Your task to perform on an android device: Go to calendar. Show me events next week Image 0: 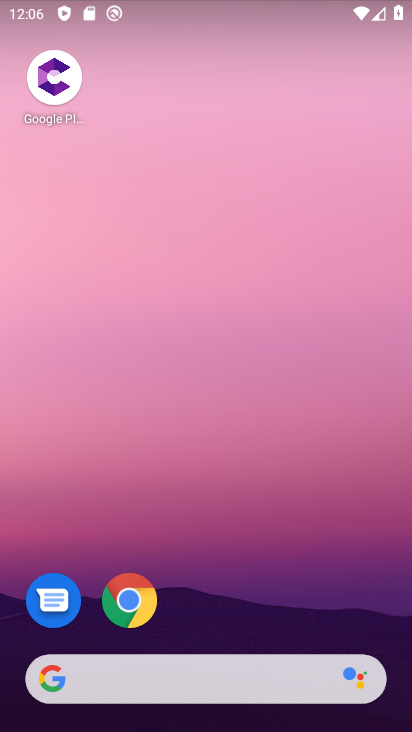
Step 0: drag from (221, 557) to (273, 99)
Your task to perform on an android device: Go to calendar. Show me events next week Image 1: 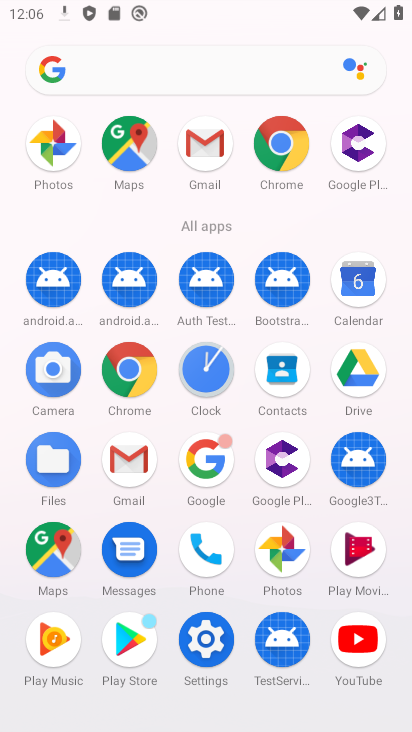
Step 1: click (361, 291)
Your task to perform on an android device: Go to calendar. Show me events next week Image 2: 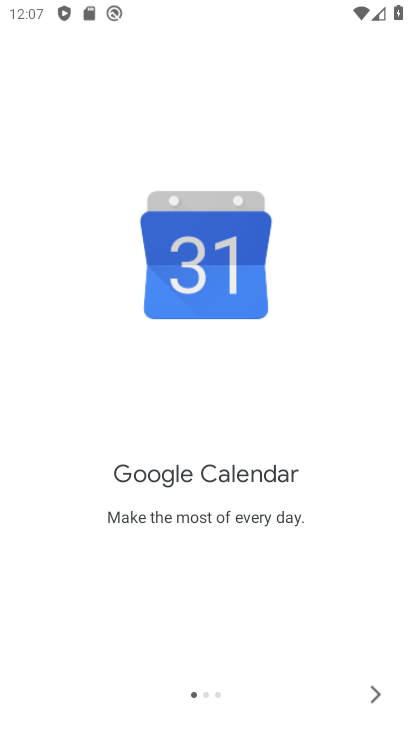
Step 2: click (375, 690)
Your task to perform on an android device: Go to calendar. Show me events next week Image 3: 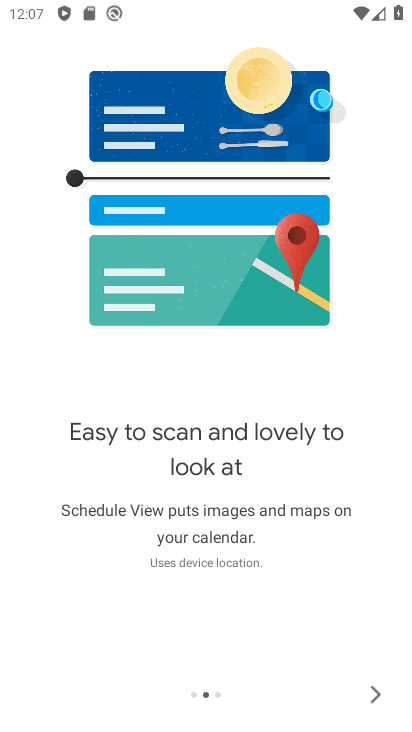
Step 3: click (375, 690)
Your task to perform on an android device: Go to calendar. Show me events next week Image 4: 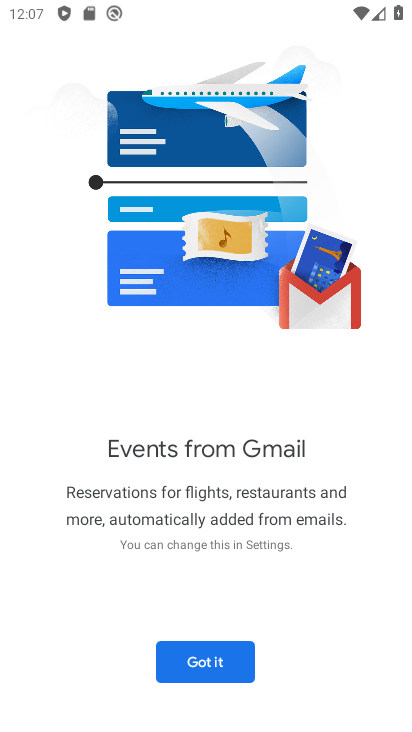
Step 4: click (238, 658)
Your task to perform on an android device: Go to calendar. Show me events next week Image 5: 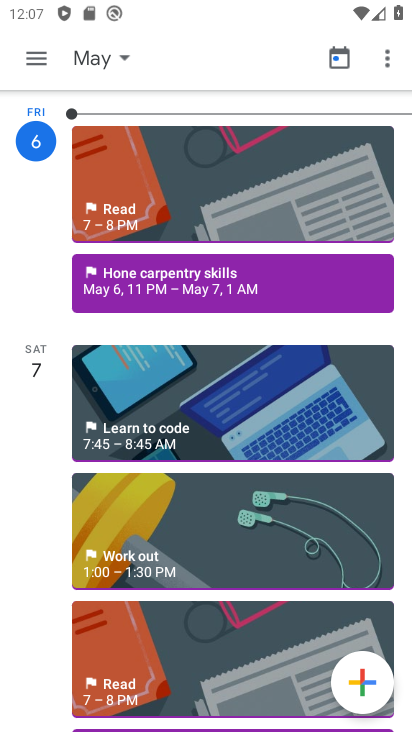
Step 5: click (122, 53)
Your task to perform on an android device: Go to calendar. Show me events next week Image 6: 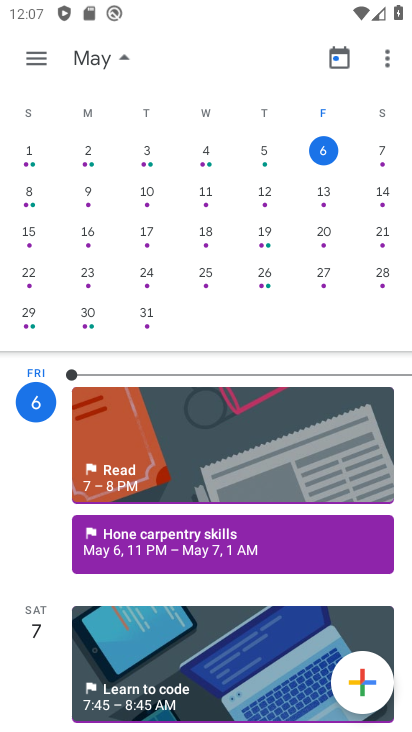
Step 6: click (36, 60)
Your task to perform on an android device: Go to calendar. Show me events next week Image 7: 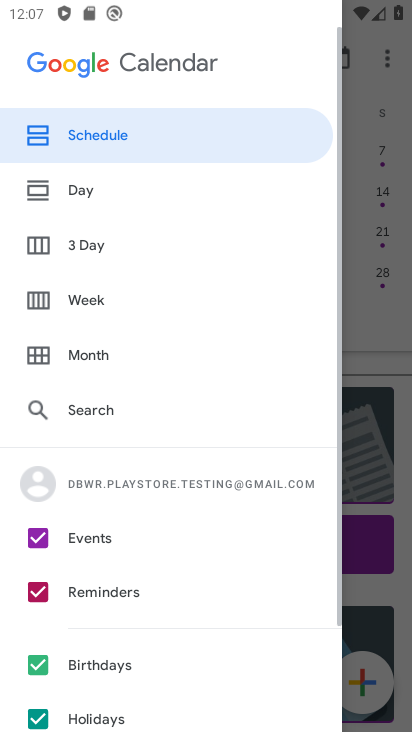
Step 7: click (89, 298)
Your task to perform on an android device: Go to calendar. Show me events next week Image 8: 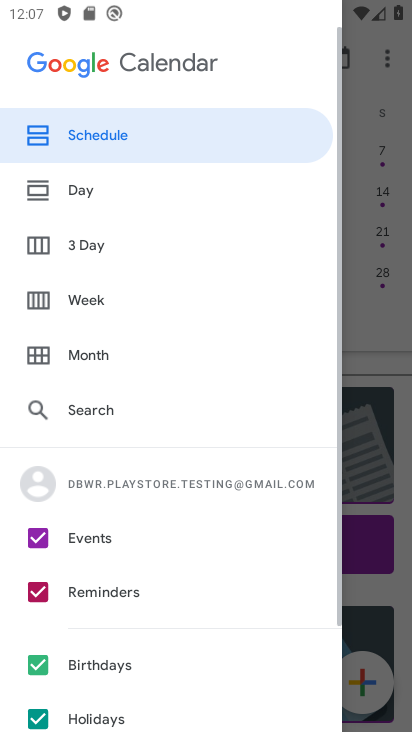
Step 8: click (38, 593)
Your task to perform on an android device: Go to calendar. Show me events next week Image 9: 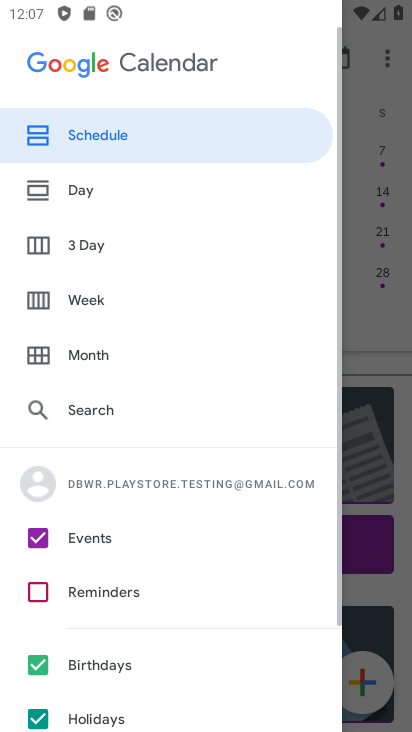
Step 9: click (36, 683)
Your task to perform on an android device: Go to calendar. Show me events next week Image 10: 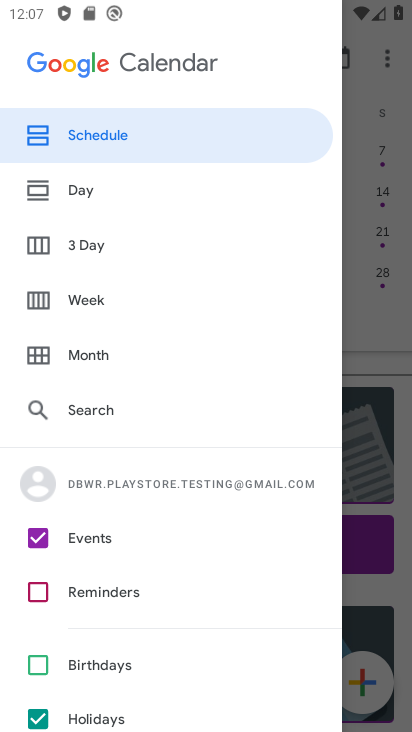
Step 10: click (36, 719)
Your task to perform on an android device: Go to calendar. Show me events next week Image 11: 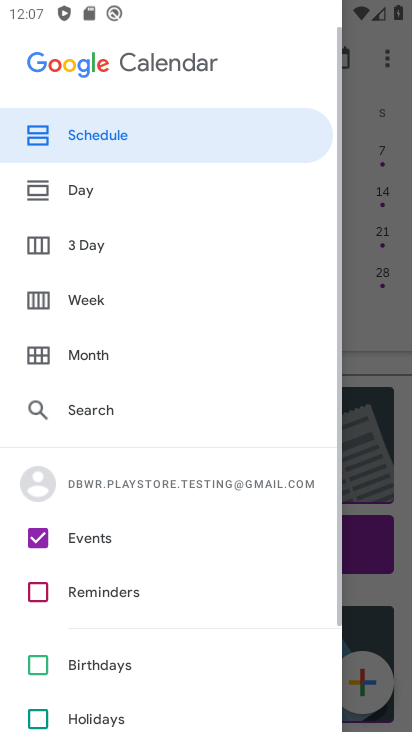
Step 11: click (88, 300)
Your task to perform on an android device: Go to calendar. Show me events next week Image 12: 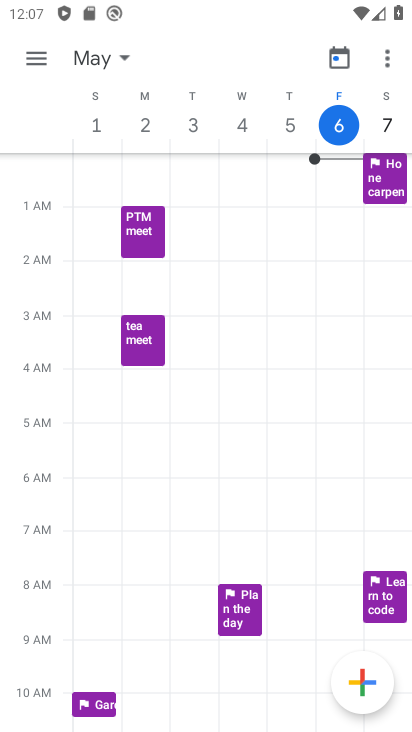
Step 12: task complete